Your task to perform on an android device: Open Google Chrome and click the shortcut for Amazon.com Image 0: 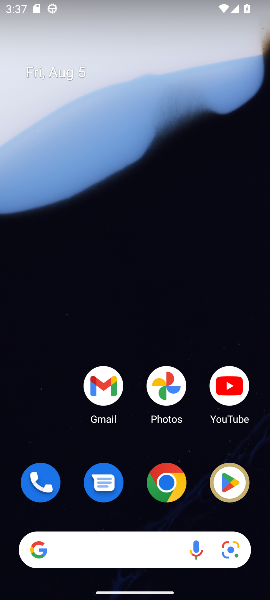
Step 0: press home button
Your task to perform on an android device: Open Google Chrome and click the shortcut for Amazon.com Image 1: 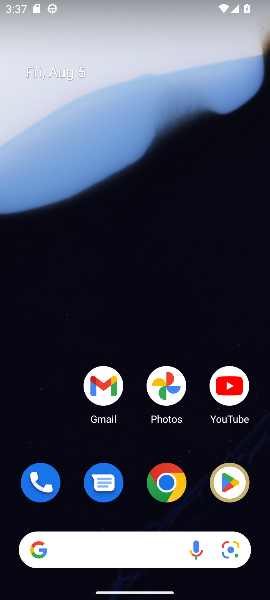
Step 1: click (161, 477)
Your task to perform on an android device: Open Google Chrome and click the shortcut for Amazon.com Image 2: 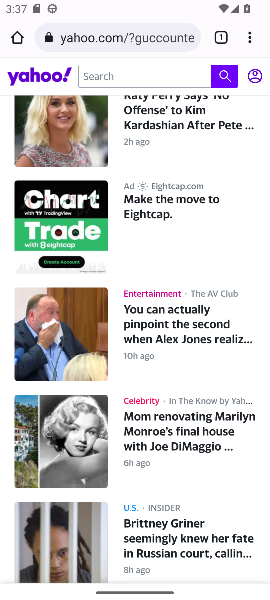
Step 2: click (220, 31)
Your task to perform on an android device: Open Google Chrome and click the shortcut for Amazon.com Image 3: 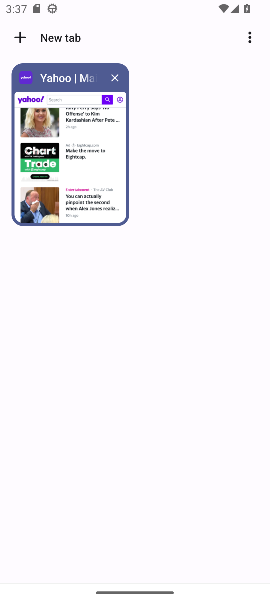
Step 3: click (19, 37)
Your task to perform on an android device: Open Google Chrome and click the shortcut for Amazon.com Image 4: 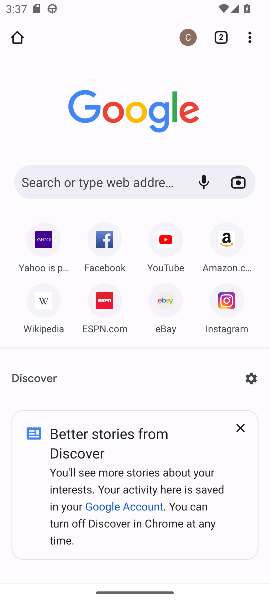
Step 4: click (225, 232)
Your task to perform on an android device: Open Google Chrome and click the shortcut for Amazon.com Image 5: 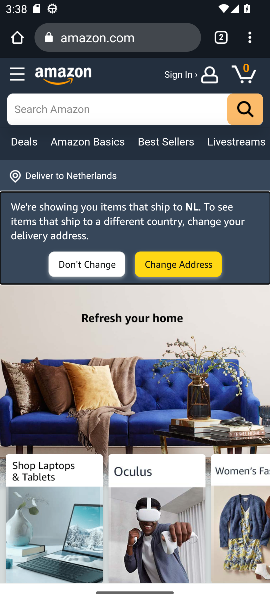
Step 5: task complete